Your task to perform on an android device: turn off location history Image 0: 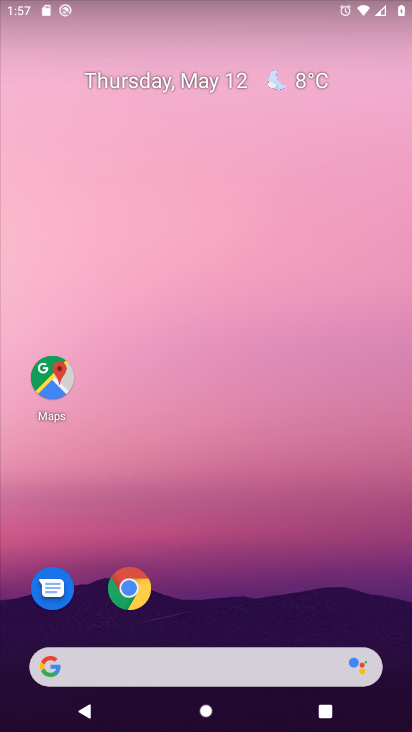
Step 0: drag from (234, 558) to (334, 0)
Your task to perform on an android device: turn off location history Image 1: 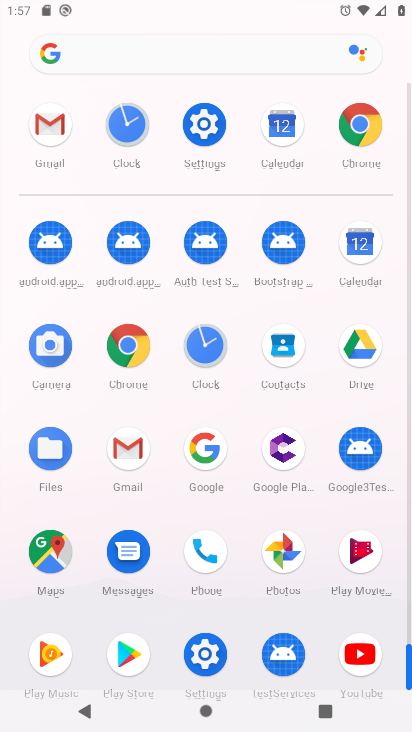
Step 1: click (200, 126)
Your task to perform on an android device: turn off location history Image 2: 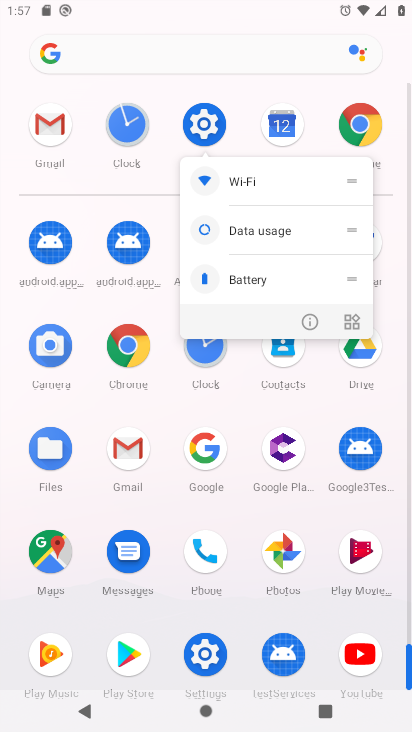
Step 2: click (200, 126)
Your task to perform on an android device: turn off location history Image 3: 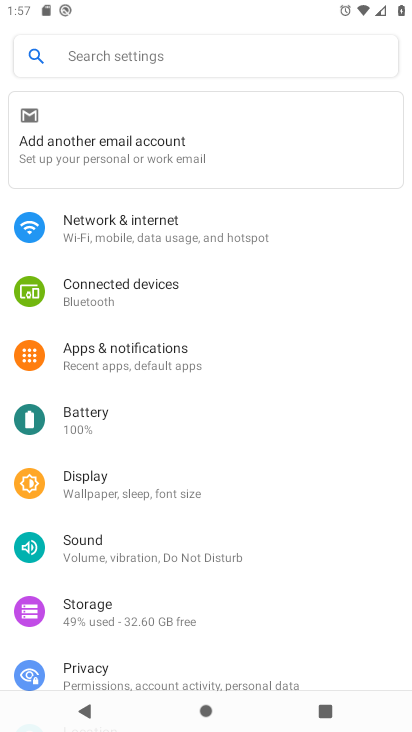
Step 3: drag from (151, 570) to (249, 145)
Your task to perform on an android device: turn off location history Image 4: 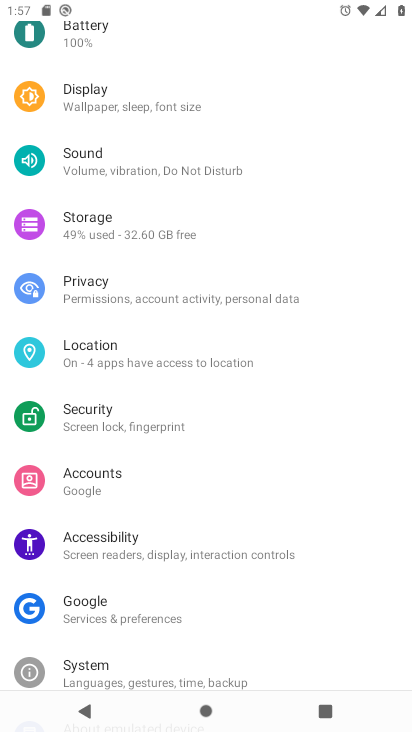
Step 4: click (112, 354)
Your task to perform on an android device: turn off location history Image 5: 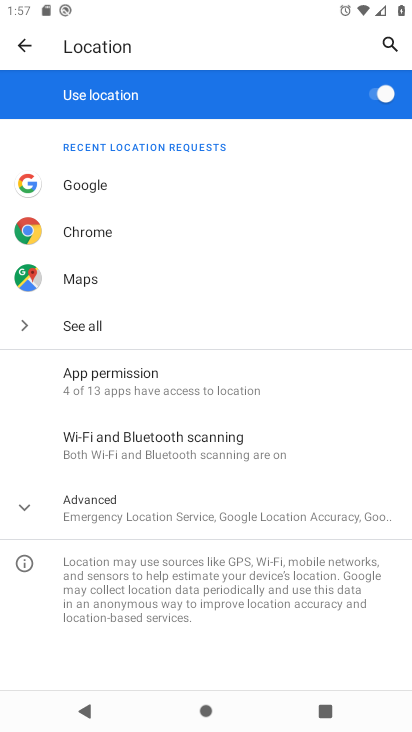
Step 5: click (378, 95)
Your task to perform on an android device: turn off location history Image 6: 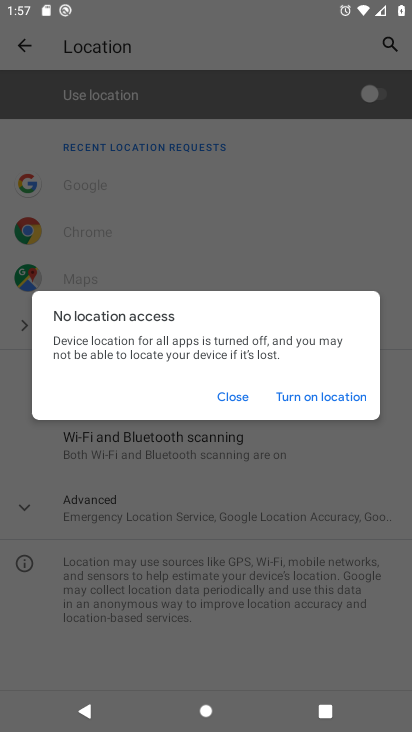
Step 6: task complete